Your task to perform on an android device: Add "alienware aurora" to the cart on target, then select checkout. Image 0: 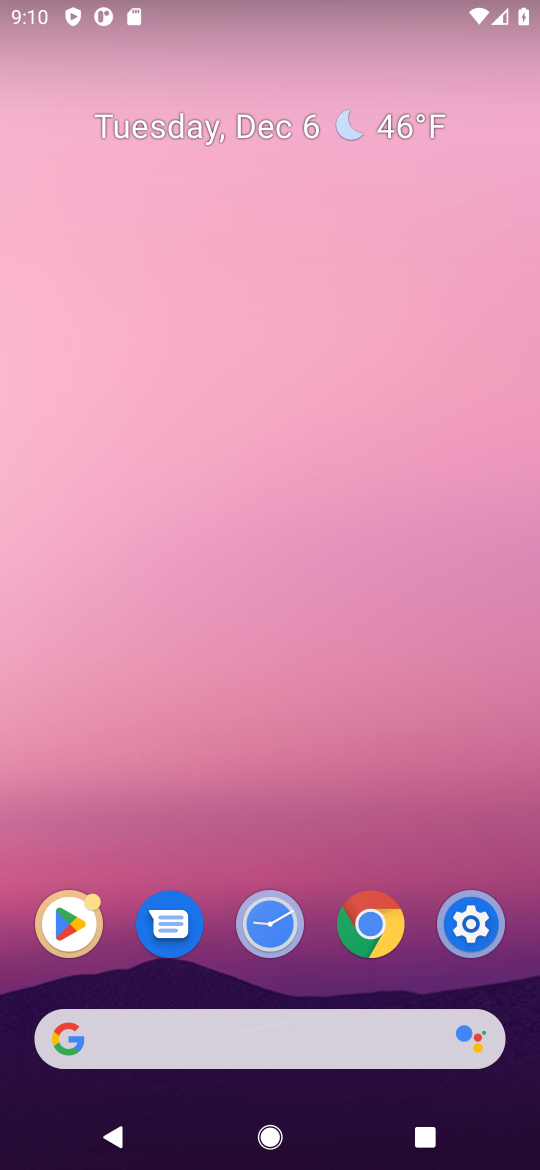
Step 0: click (171, 1041)
Your task to perform on an android device: Add "alienware aurora" to the cart on target, then select checkout. Image 1: 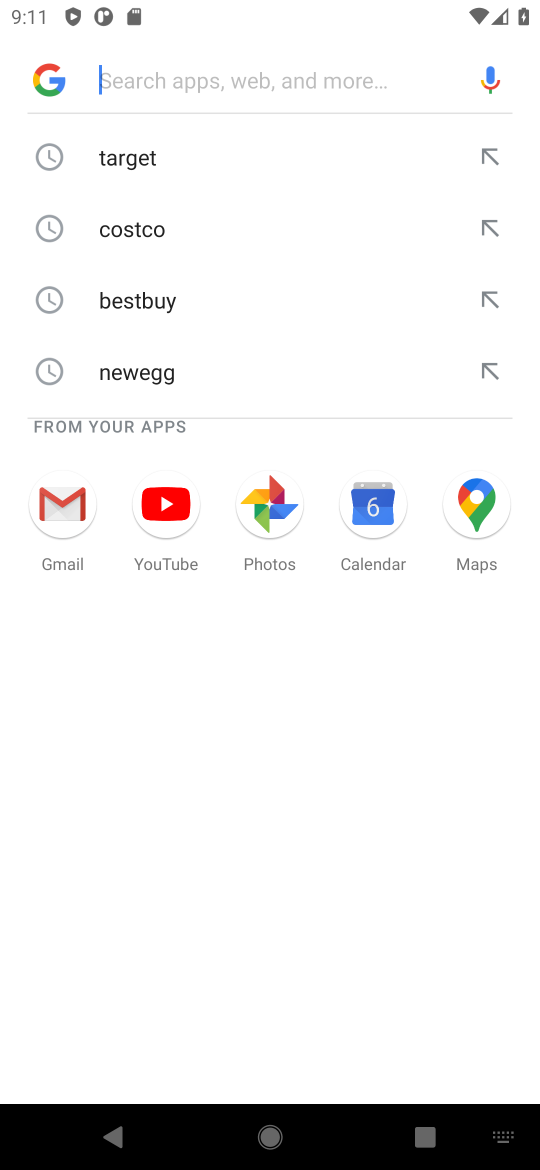
Step 1: click (181, 126)
Your task to perform on an android device: Add "alienware aurora" to the cart on target, then select checkout. Image 2: 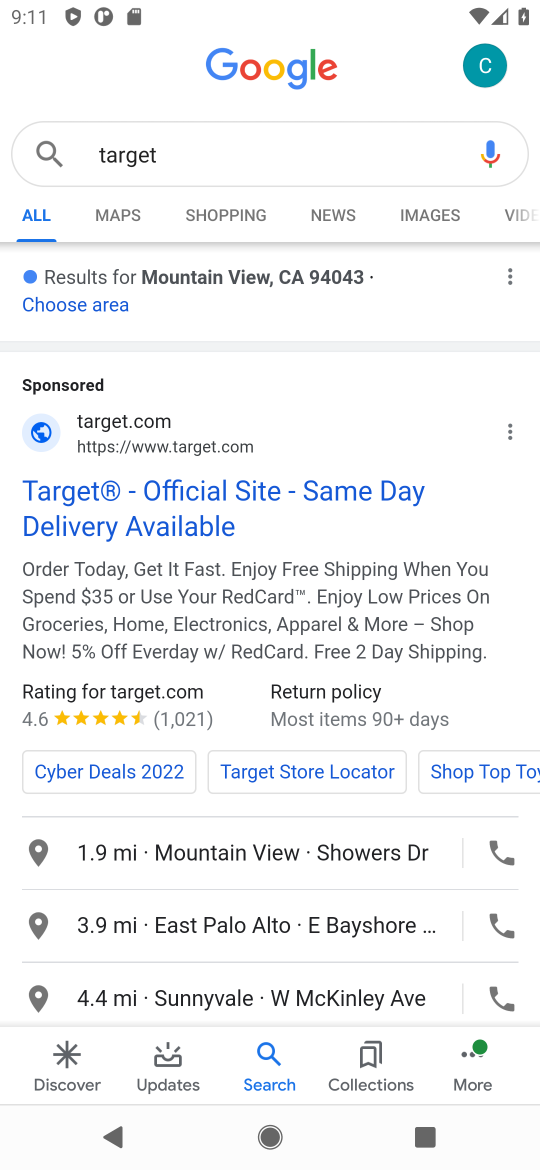
Step 2: click (103, 496)
Your task to perform on an android device: Add "alienware aurora" to the cart on target, then select checkout. Image 3: 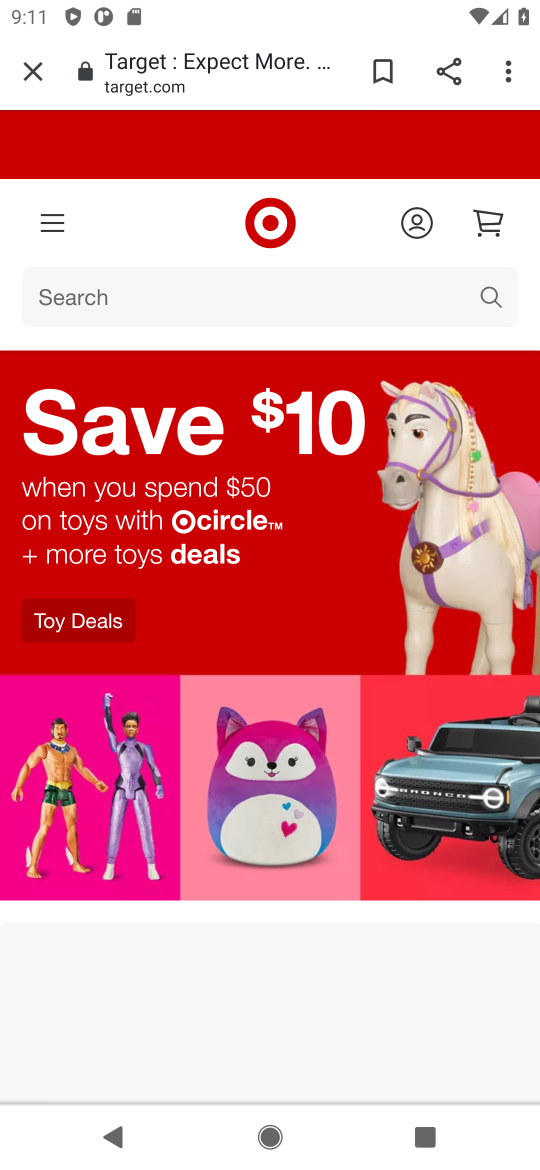
Step 3: click (141, 293)
Your task to perform on an android device: Add "alienware aurora" to the cart on target, then select checkout. Image 4: 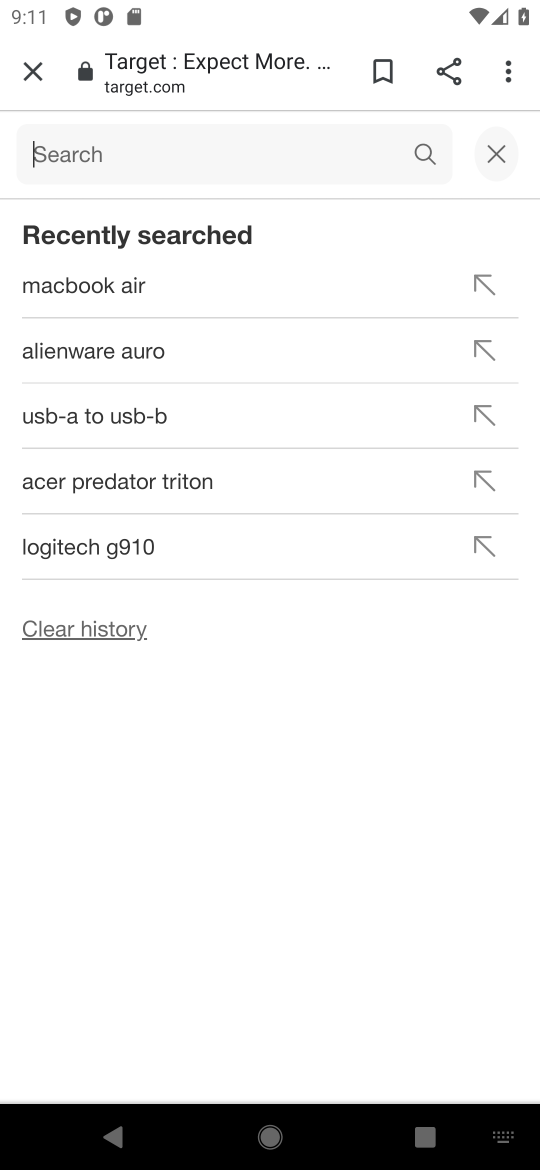
Step 4: type "alienware aura"
Your task to perform on an android device: Add "alienware aurora" to the cart on target, then select checkout. Image 5: 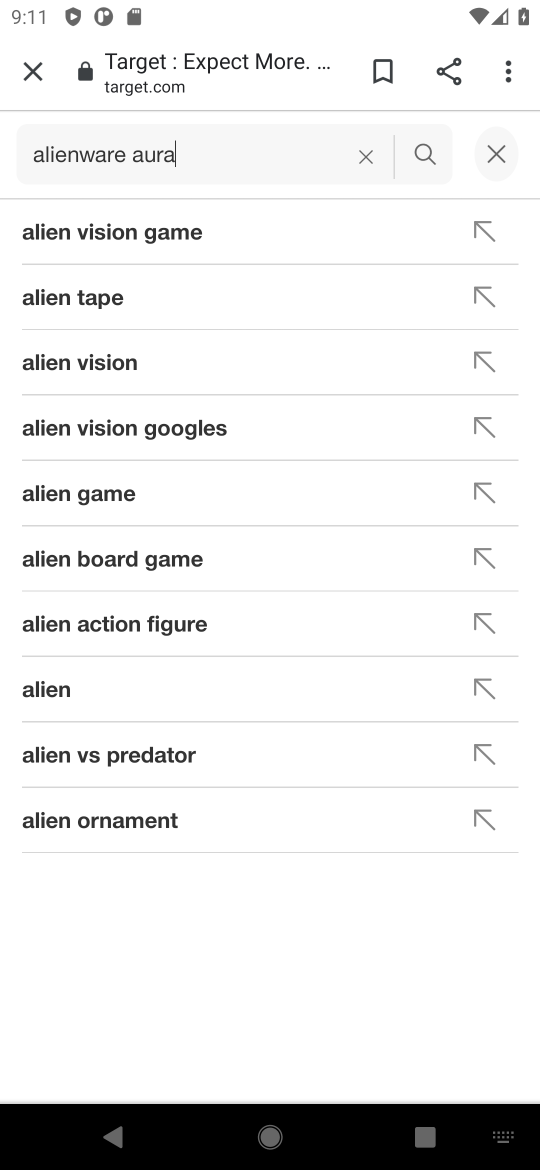
Step 5: click (420, 170)
Your task to perform on an android device: Add "alienware aurora" to the cart on target, then select checkout. Image 6: 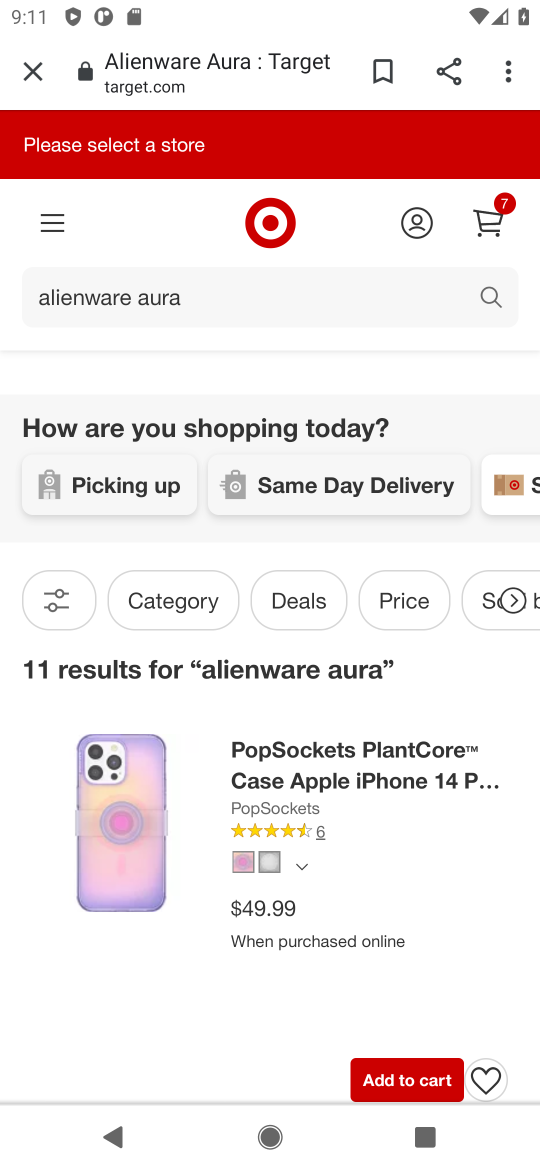
Step 6: click (419, 1058)
Your task to perform on an android device: Add "alienware aurora" to the cart on target, then select checkout. Image 7: 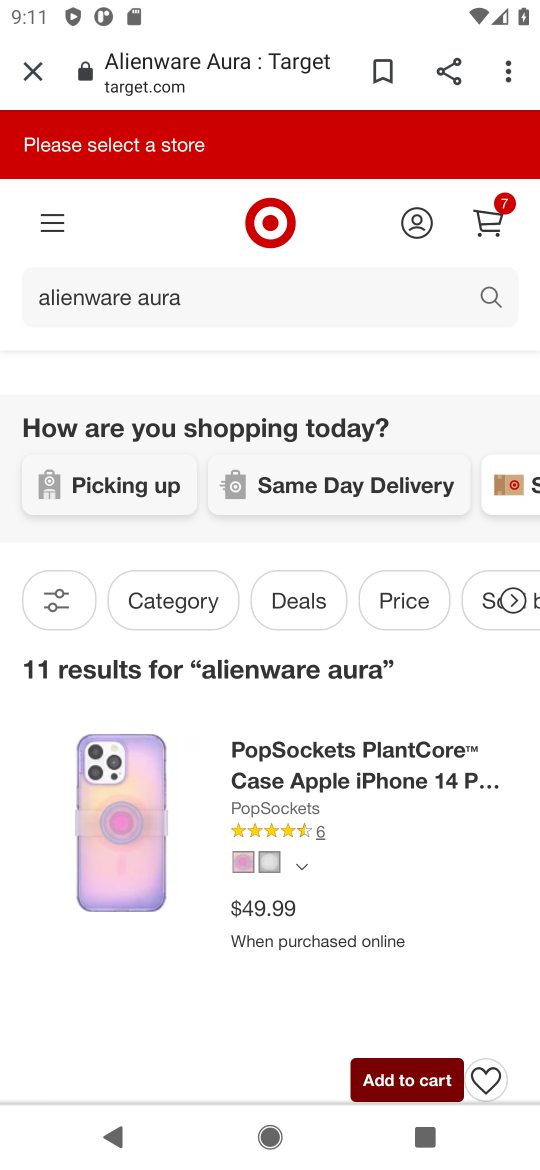
Step 7: task complete